Your task to perform on an android device: Open the stopwatch Image 0: 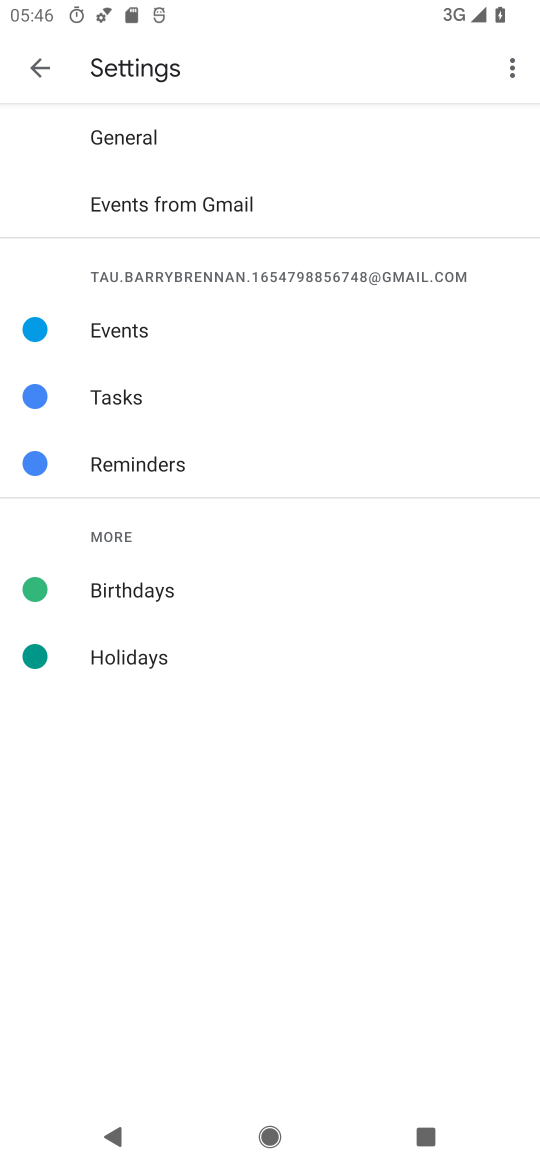
Step 0: press home button
Your task to perform on an android device: Open the stopwatch Image 1: 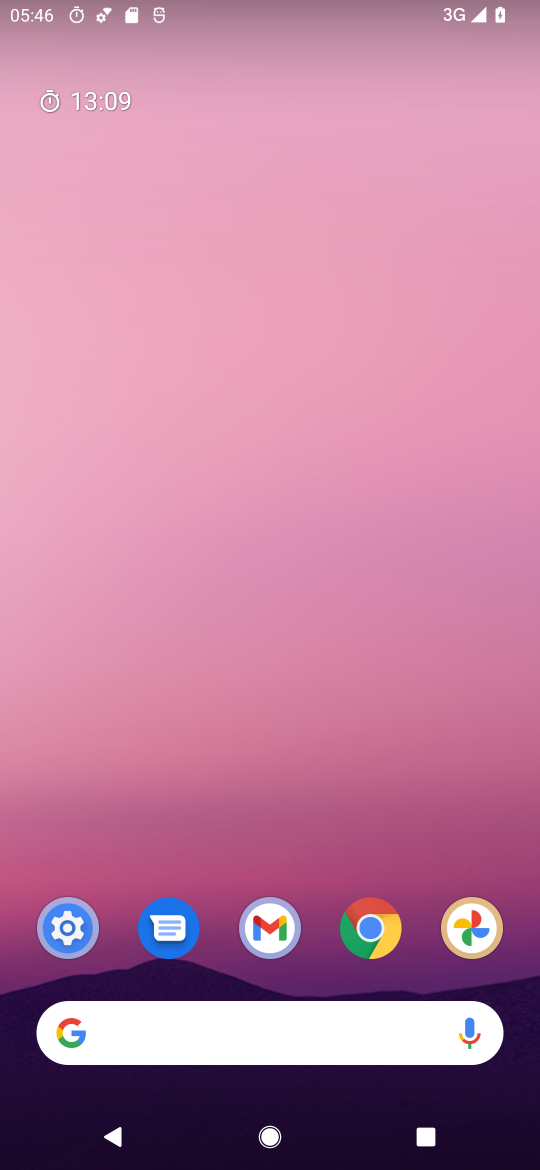
Step 1: drag from (249, 886) to (294, 328)
Your task to perform on an android device: Open the stopwatch Image 2: 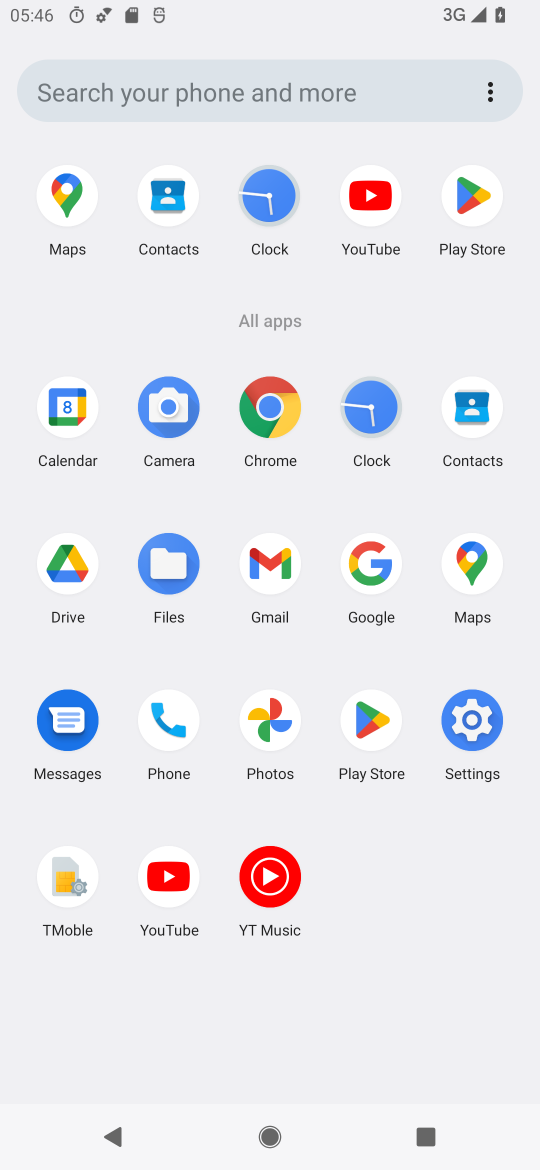
Step 2: click (366, 436)
Your task to perform on an android device: Open the stopwatch Image 3: 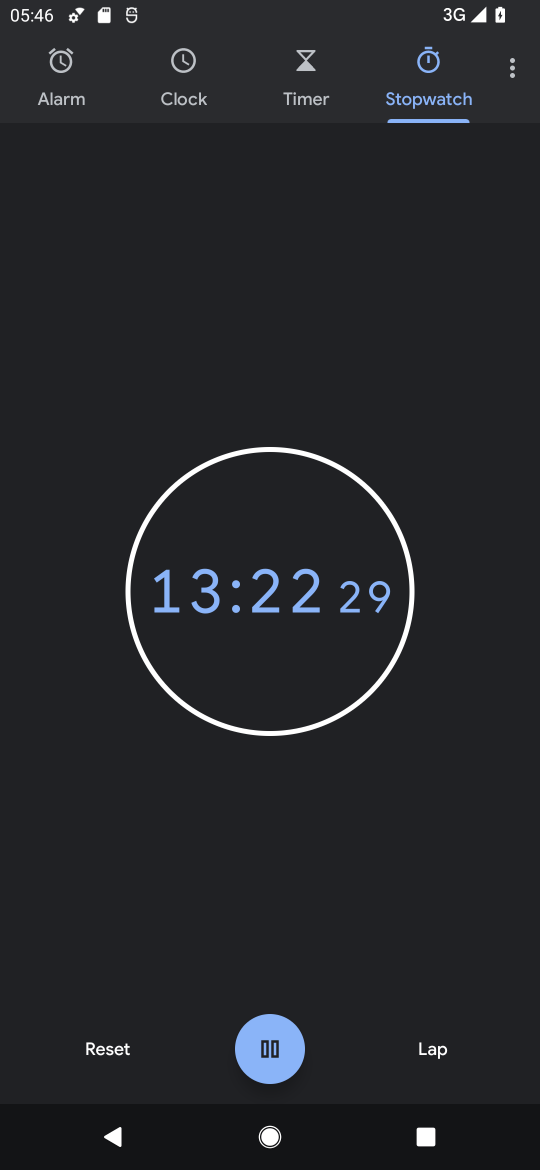
Step 3: click (115, 1040)
Your task to perform on an android device: Open the stopwatch Image 4: 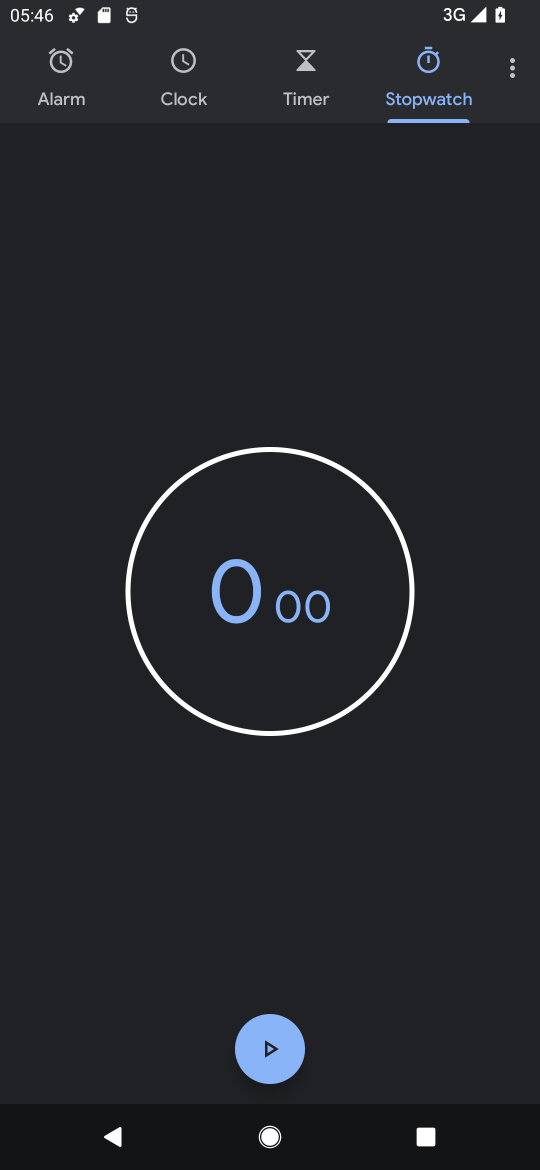
Step 4: click (279, 1050)
Your task to perform on an android device: Open the stopwatch Image 5: 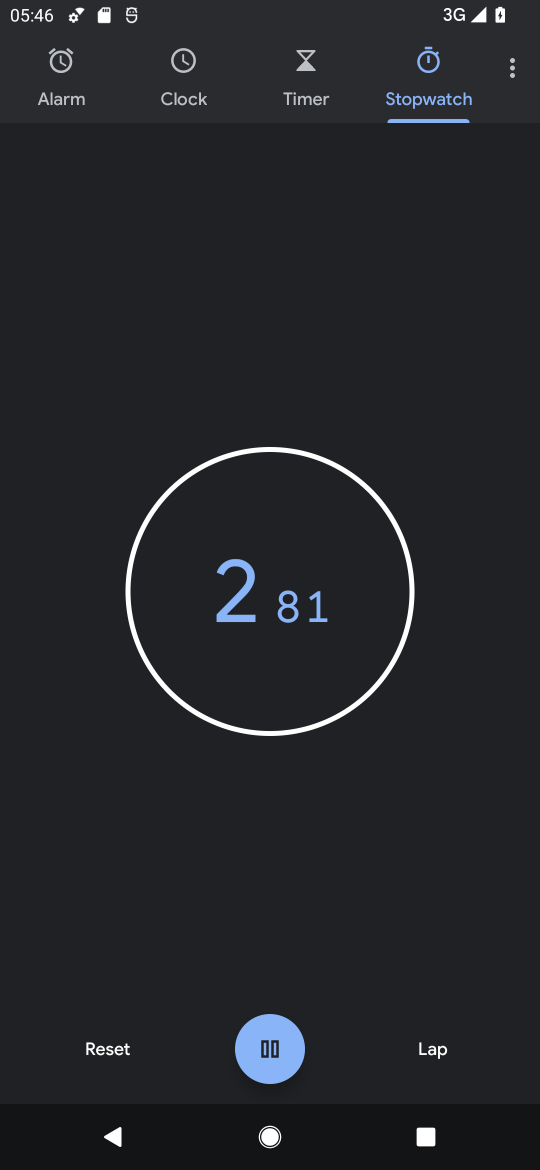
Step 5: task complete